Your task to perform on an android device: What's the weather going to be tomorrow? Image 0: 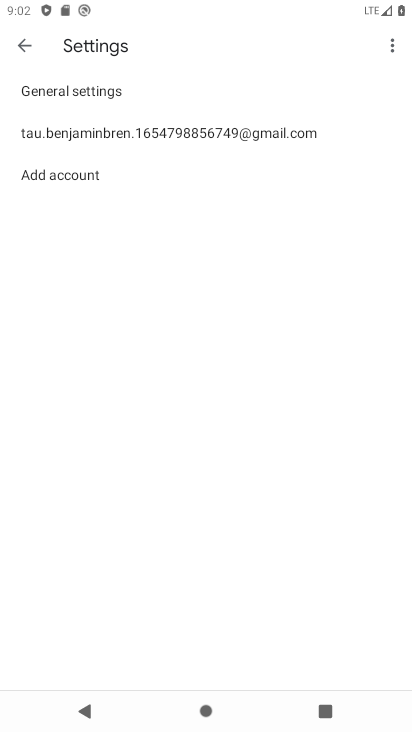
Step 0: press home button
Your task to perform on an android device: What's the weather going to be tomorrow? Image 1: 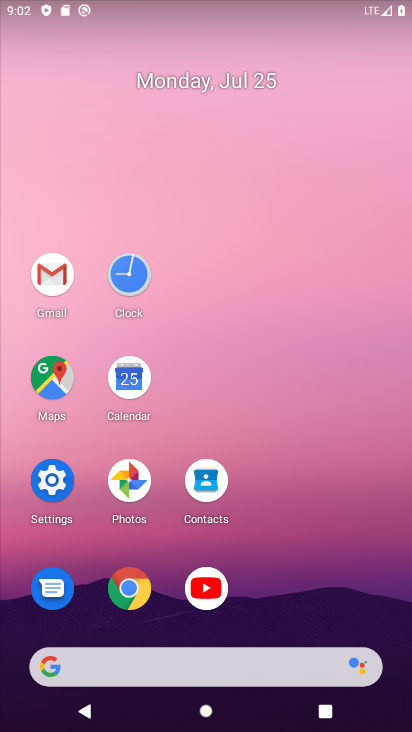
Step 1: click (149, 666)
Your task to perform on an android device: What's the weather going to be tomorrow? Image 2: 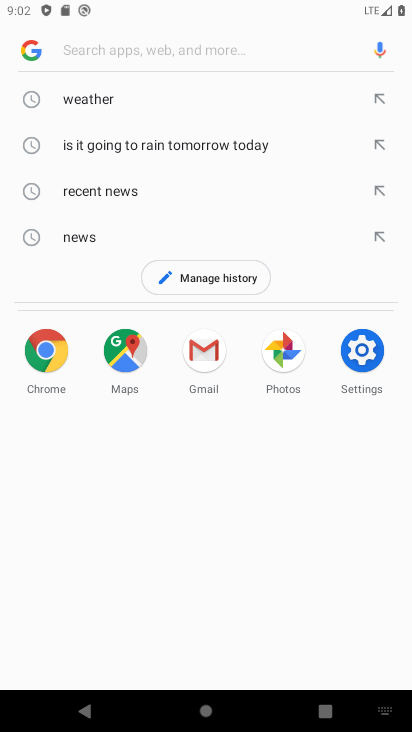
Step 2: click (89, 91)
Your task to perform on an android device: What's the weather going to be tomorrow? Image 3: 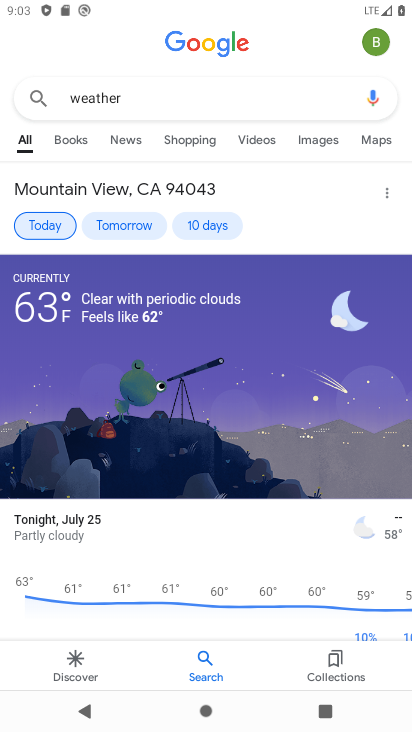
Step 3: click (123, 218)
Your task to perform on an android device: What's the weather going to be tomorrow? Image 4: 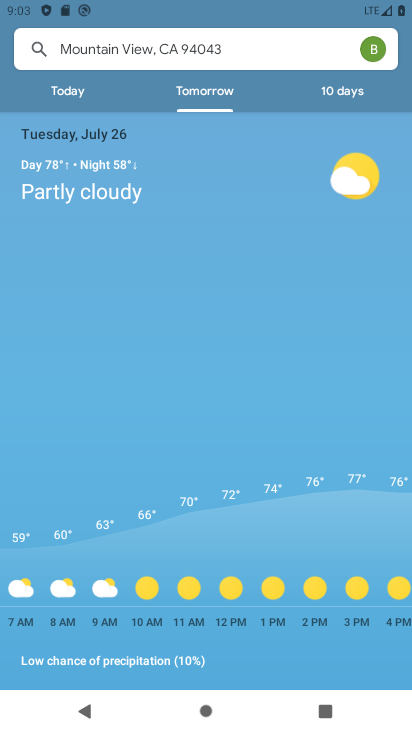
Step 4: task complete